Your task to perform on an android device: snooze an email in the gmail app Image 0: 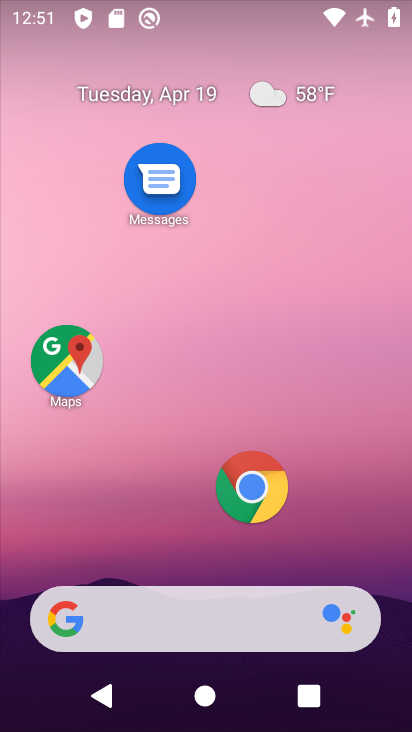
Step 0: drag from (218, 452) to (246, 187)
Your task to perform on an android device: snooze an email in the gmail app Image 1: 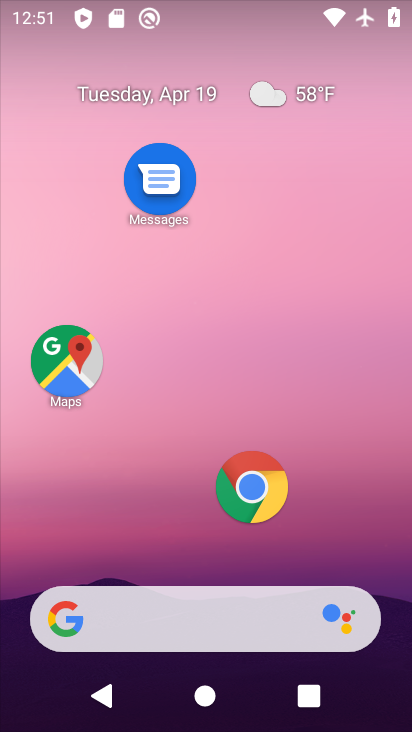
Step 1: drag from (211, 490) to (232, 207)
Your task to perform on an android device: snooze an email in the gmail app Image 2: 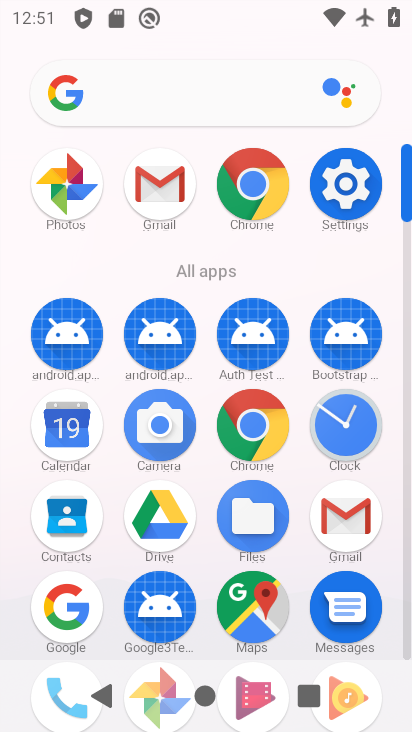
Step 2: click (162, 192)
Your task to perform on an android device: snooze an email in the gmail app Image 3: 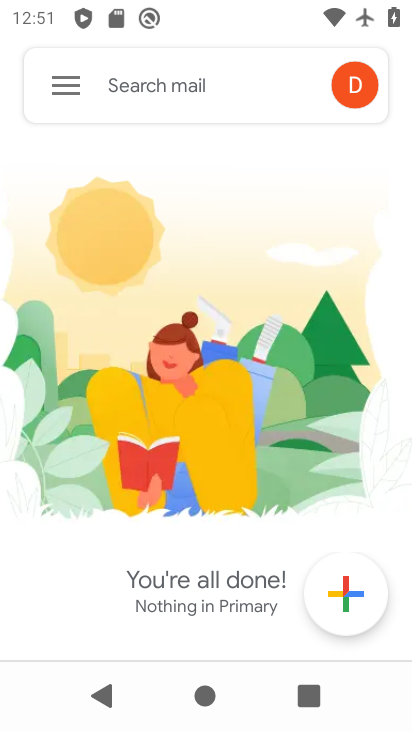
Step 3: click (65, 73)
Your task to perform on an android device: snooze an email in the gmail app Image 4: 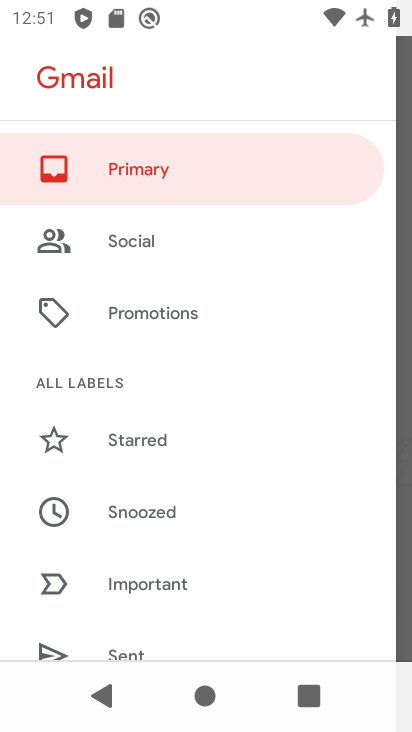
Step 4: drag from (127, 605) to (129, 212)
Your task to perform on an android device: snooze an email in the gmail app Image 5: 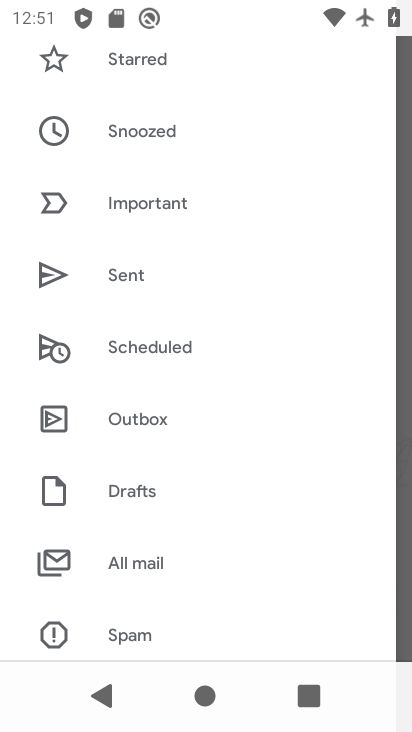
Step 5: click (122, 558)
Your task to perform on an android device: snooze an email in the gmail app Image 6: 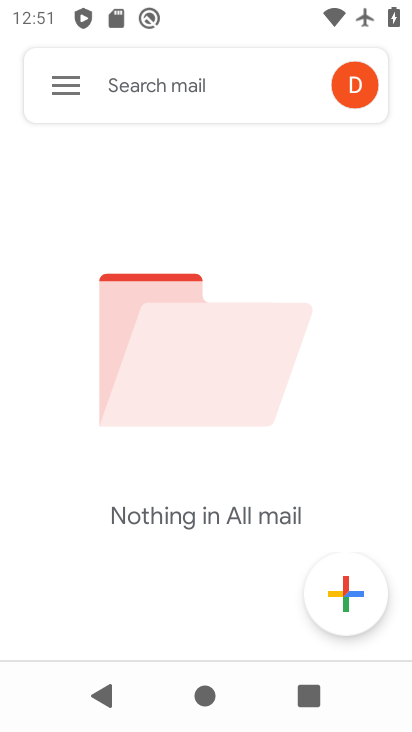
Step 6: task complete